Your task to perform on an android device: Go to internet settings Image 0: 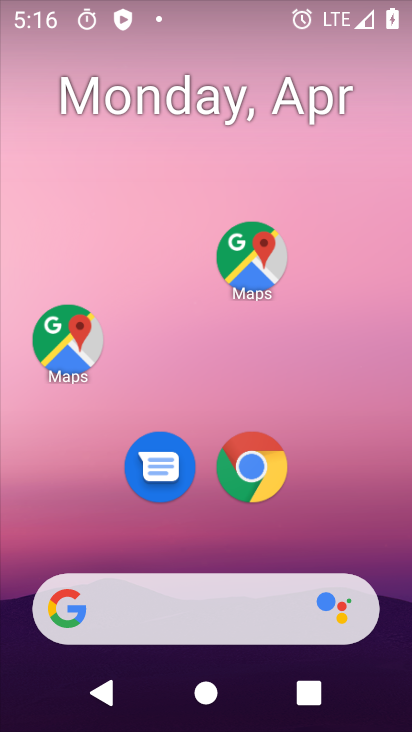
Step 0: drag from (186, 519) to (291, 8)
Your task to perform on an android device: Go to internet settings Image 1: 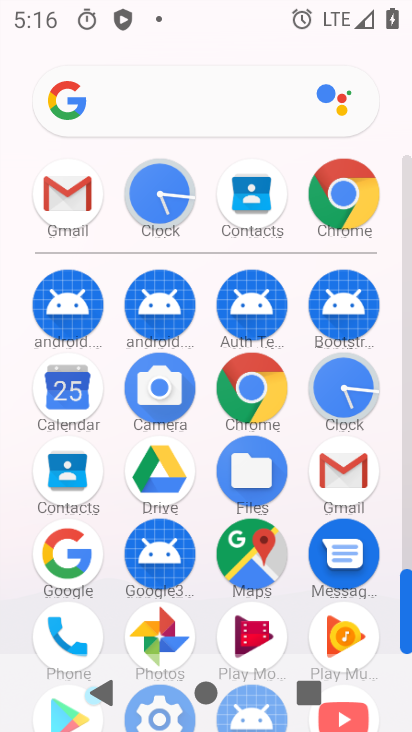
Step 1: drag from (287, 607) to (308, 166)
Your task to perform on an android device: Go to internet settings Image 2: 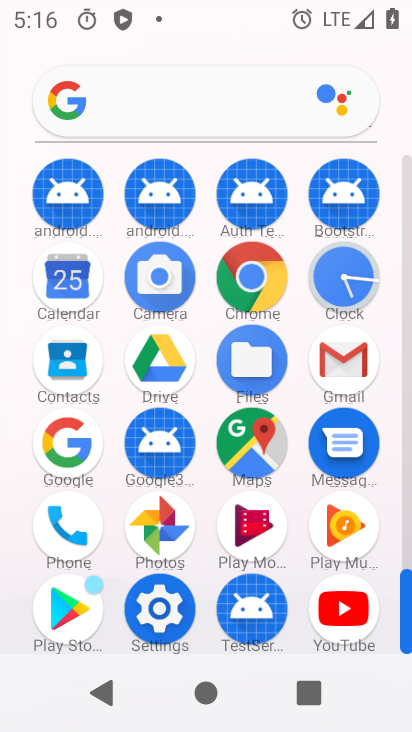
Step 2: click (164, 611)
Your task to perform on an android device: Go to internet settings Image 3: 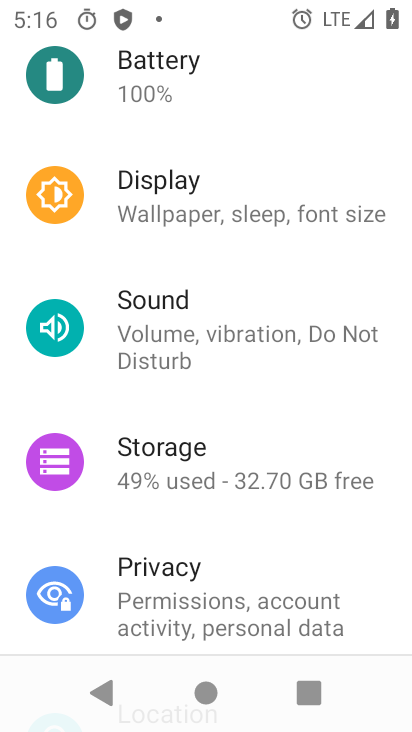
Step 3: drag from (213, 216) to (296, 703)
Your task to perform on an android device: Go to internet settings Image 4: 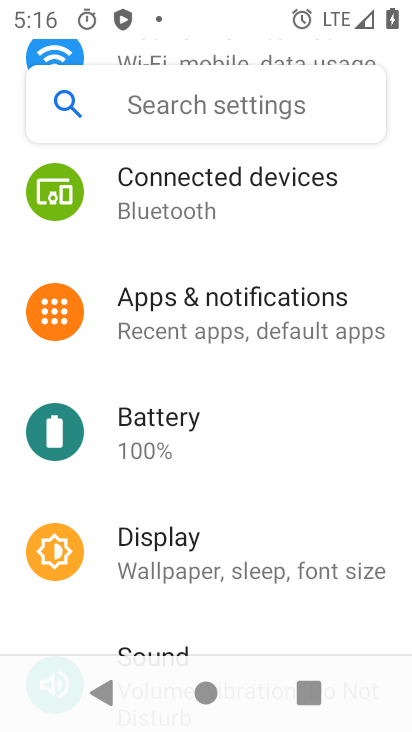
Step 4: drag from (305, 242) to (373, 722)
Your task to perform on an android device: Go to internet settings Image 5: 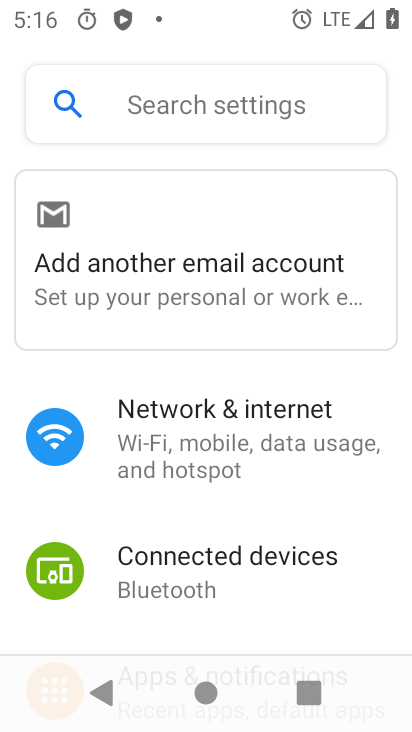
Step 5: drag from (252, 649) to (325, 161)
Your task to perform on an android device: Go to internet settings Image 6: 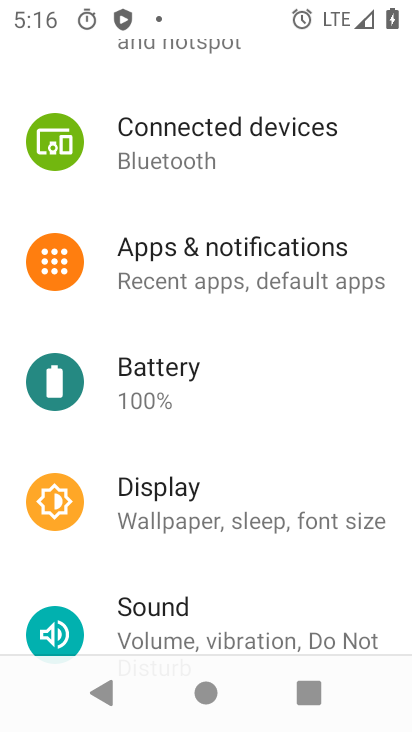
Step 6: drag from (320, 75) to (348, 632)
Your task to perform on an android device: Go to internet settings Image 7: 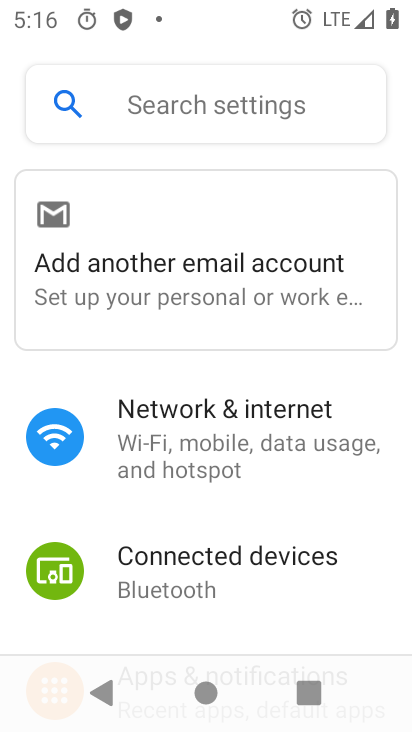
Step 7: click (300, 430)
Your task to perform on an android device: Go to internet settings Image 8: 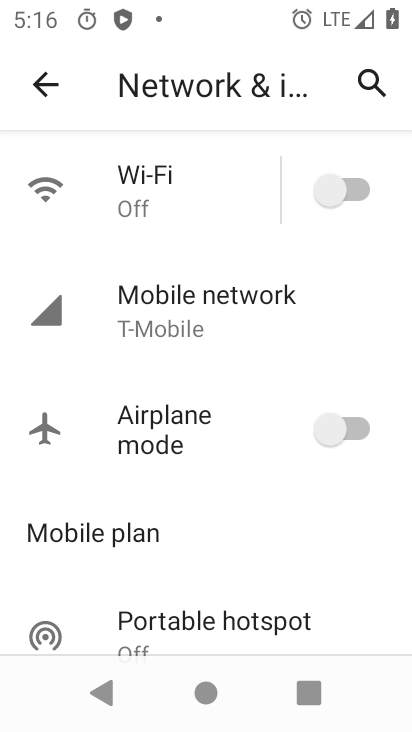
Step 8: task complete